Your task to perform on an android device: Show me the alarms in the clock app Image 0: 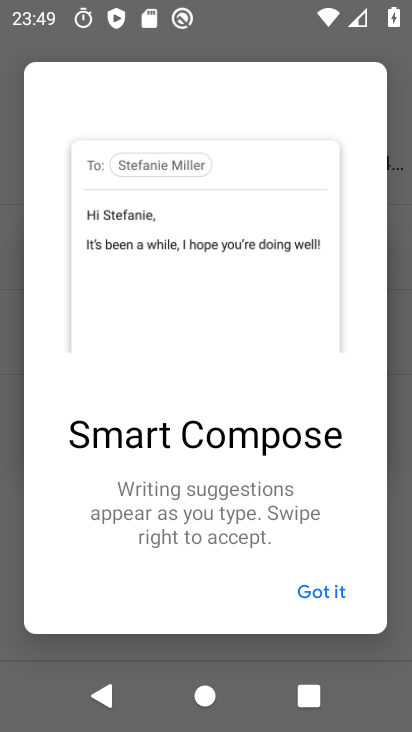
Step 0: press home button
Your task to perform on an android device: Show me the alarms in the clock app Image 1: 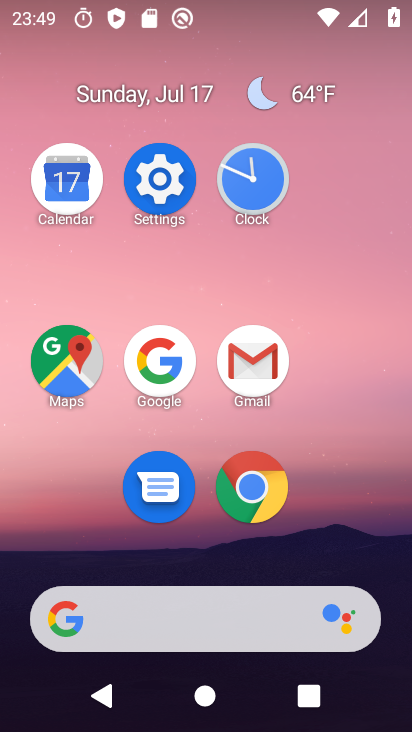
Step 1: click (248, 181)
Your task to perform on an android device: Show me the alarms in the clock app Image 2: 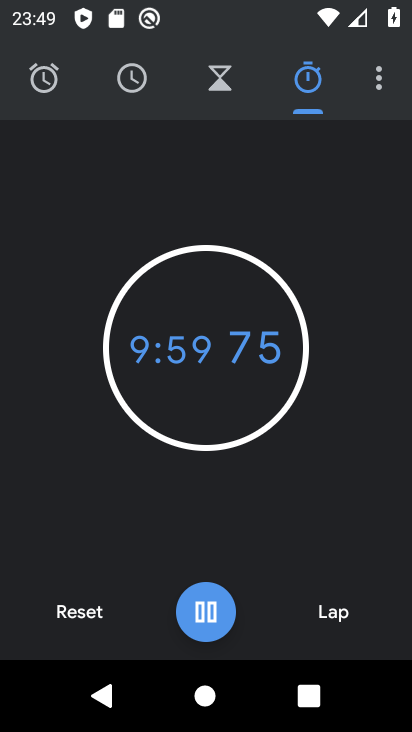
Step 2: click (58, 71)
Your task to perform on an android device: Show me the alarms in the clock app Image 3: 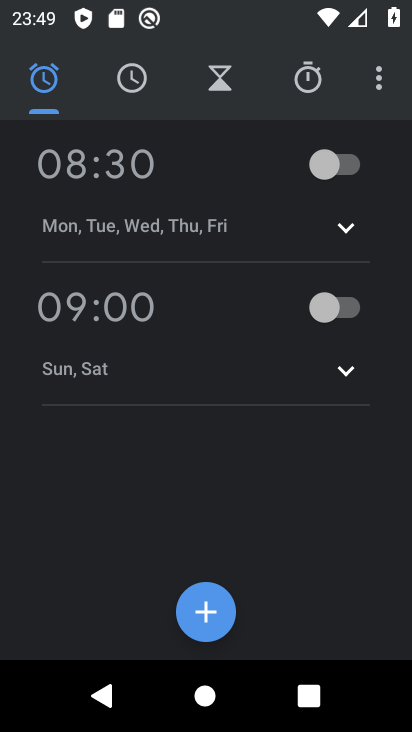
Step 3: task complete